Your task to perform on an android device: turn off priority inbox in the gmail app Image 0: 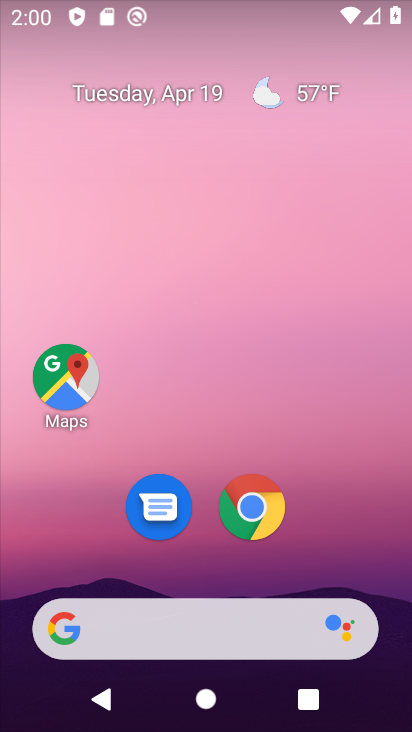
Step 0: drag from (279, 520) to (283, 116)
Your task to perform on an android device: turn off priority inbox in the gmail app Image 1: 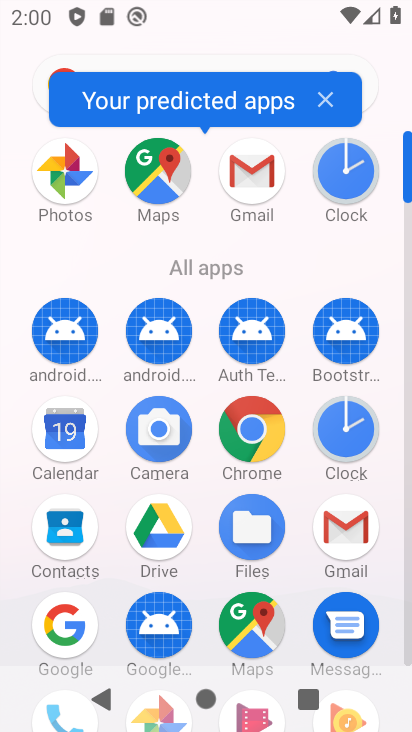
Step 1: click (360, 538)
Your task to perform on an android device: turn off priority inbox in the gmail app Image 2: 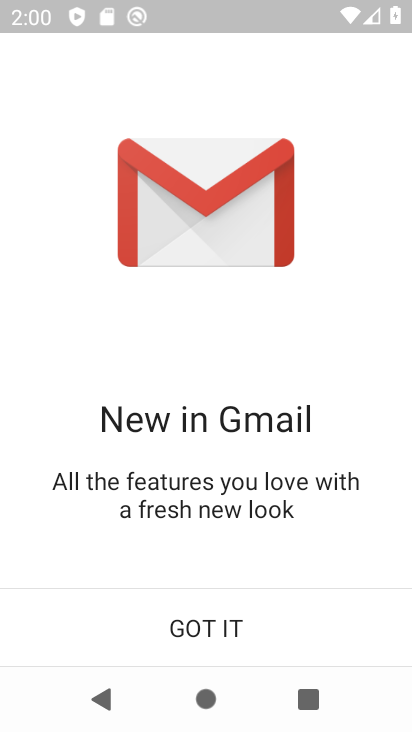
Step 2: click (234, 619)
Your task to perform on an android device: turn off priority inbox in the gmail app Image 3: 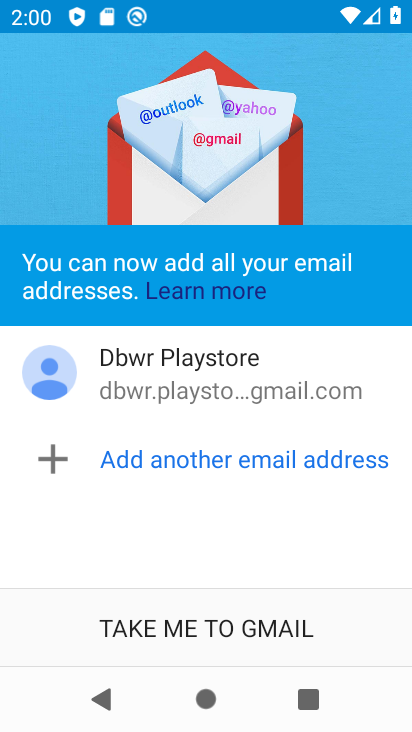
Step 3: click (237, 624)
Your task to perform on an android device: turn off priority inbox in the gmail app Image 4: 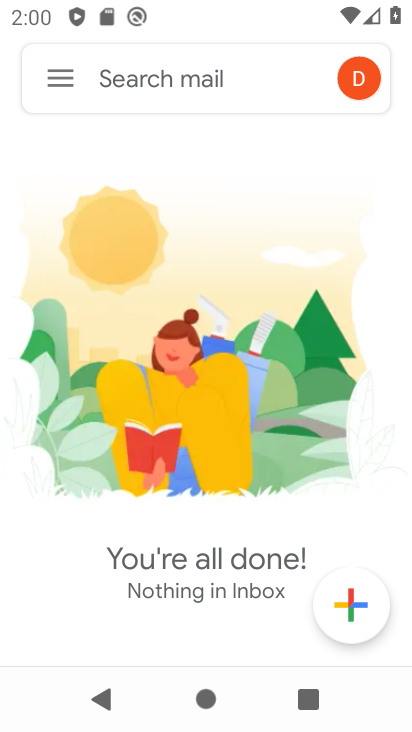
Step 4: click (67, 84)
Your task to perform on an android device: turn off priority inbox in the gmail app Image 5: 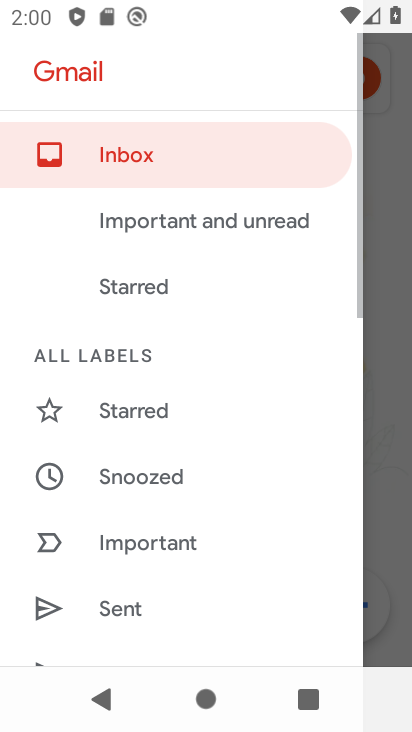
Step 5: drag from (197, 502) to (208, 144)
Your task to perform on an android device: turn off priority inbox in the gmail app Image 6: 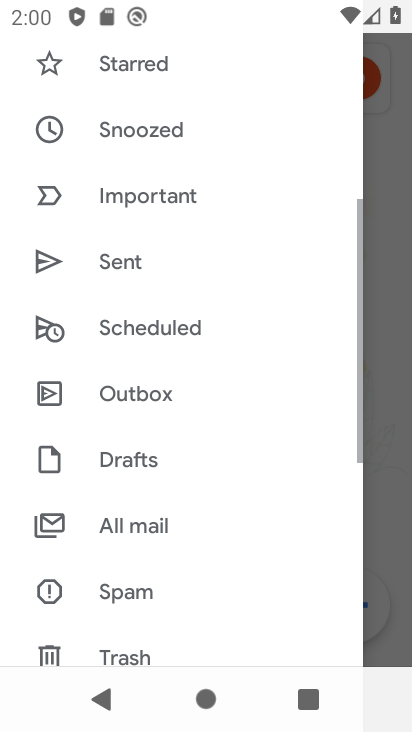
Step 6: drag from (203, 537) to (227, 119)
Your task to perform on an android device: turn off priority inbox in the gmail app Image 7: 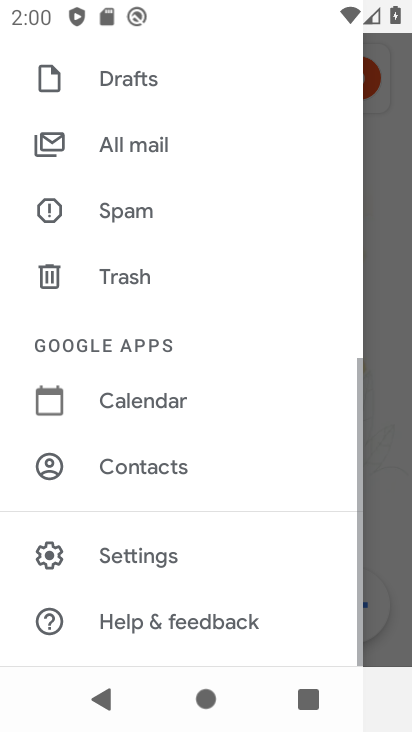
Step 7: click (163, 558)
Your task to perform on an android device: turn off priority inbox in the gmail app Image 8: 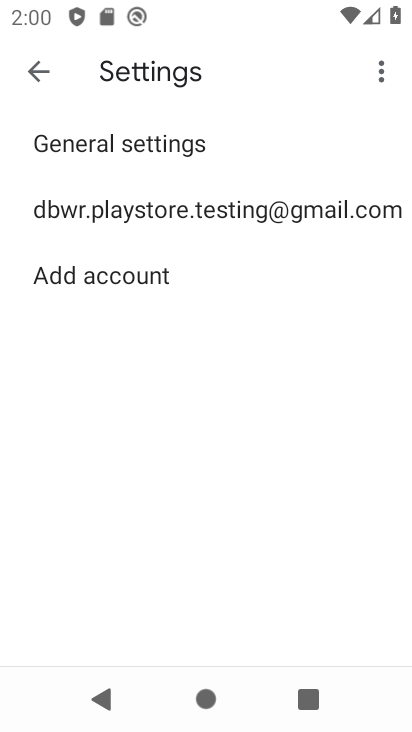
Step 8: click (158, 198)
Your task to perform on an android device: turn off priority inbox in the gmail app Image 9: 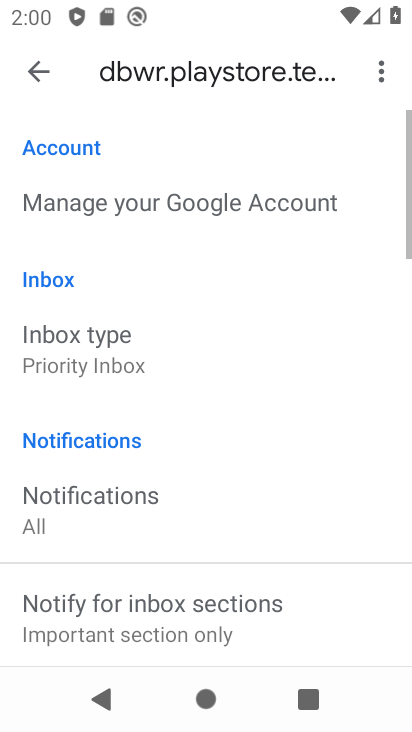
Step 9: click (150, 345)
Your task to perform on an android device: turn off priority inbox in the gmail app Image 10: 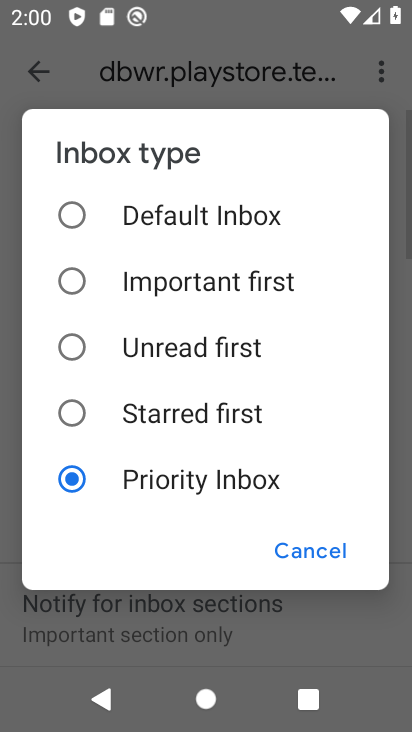
Step 10: click (80, 220)
Your task to perform on an android device: turn off priority inbox in the gmail app Image 11: 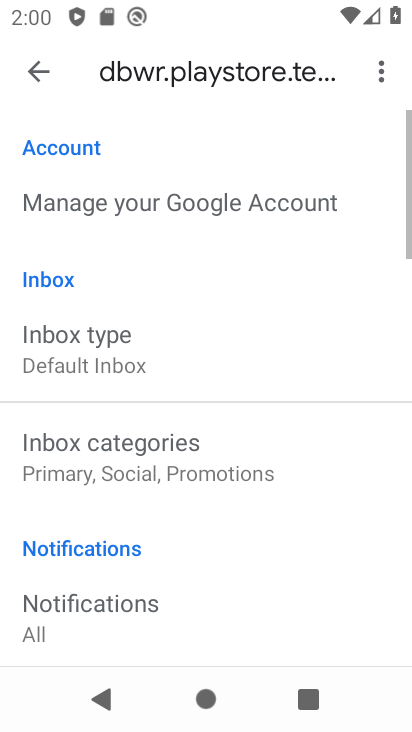
Step 11: task complete